Your task to perform on an android device: snooze an email in the gmail app Image 0: 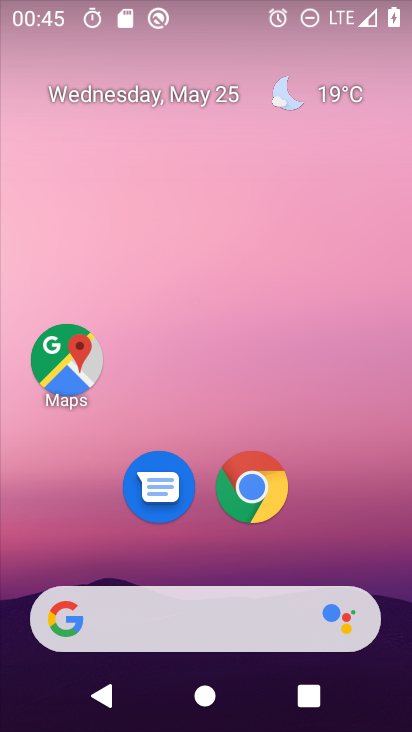
Step 0: drag from (335, 495) to (317, 4)
Your task to perform on an android device: snooze an email in the gmail app Image 1: 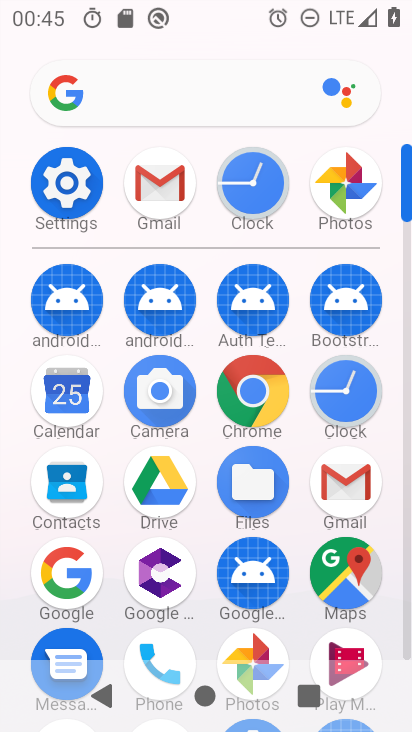
Step 1: click (152, 193)
Your task to perform on an android device: snooze an email in the gmail app Image 2: 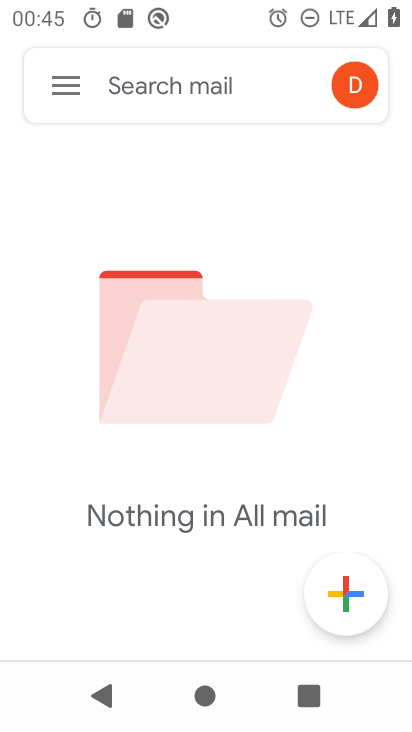
Step 2: task complete